Your task to perform on an android device: Do I have any events today? Image 0: 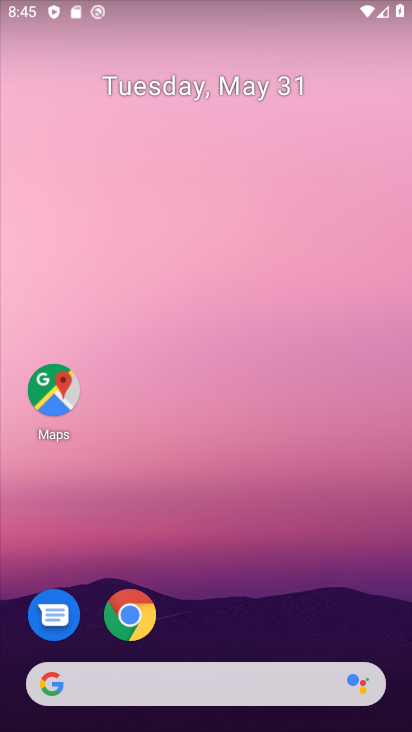
Step 0: press home button
Your task to perform on an android device: Do I have any events today? Image 1: 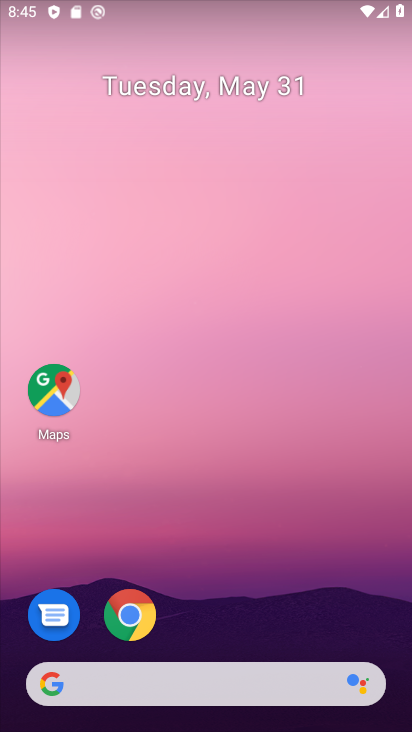
Step 1: drag from (225, 528) to (208, 105)
Your task to perform on an android device: Do I have any events today? Image 2: 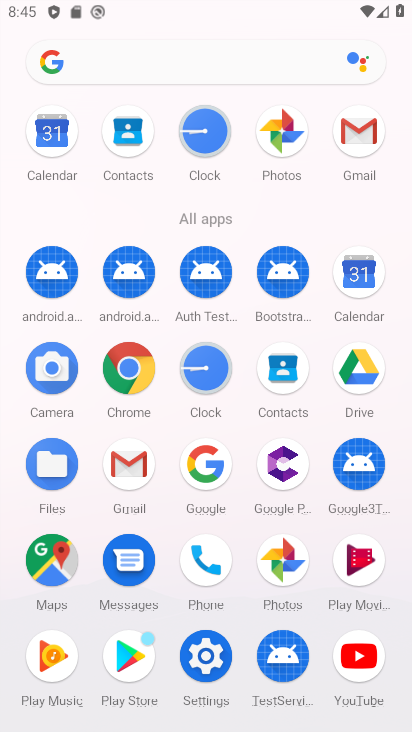
Step 2: click (347, 270)
Your task to perform on an android device: Do I have any events today? Image 3: 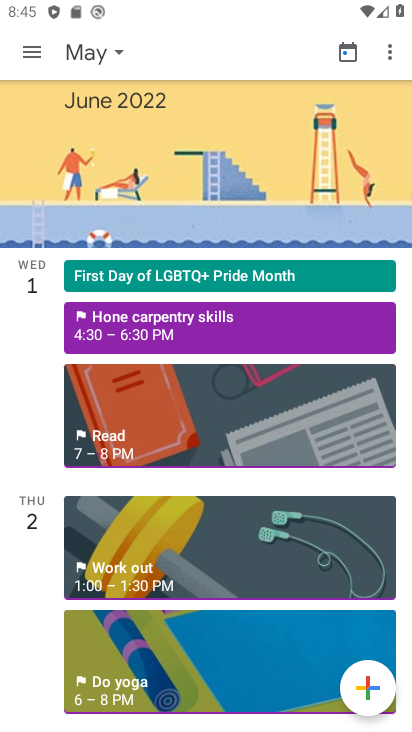
Step 3: click (23, 62)
Your task to perform on an android device: Do I have any events today? Image 4: 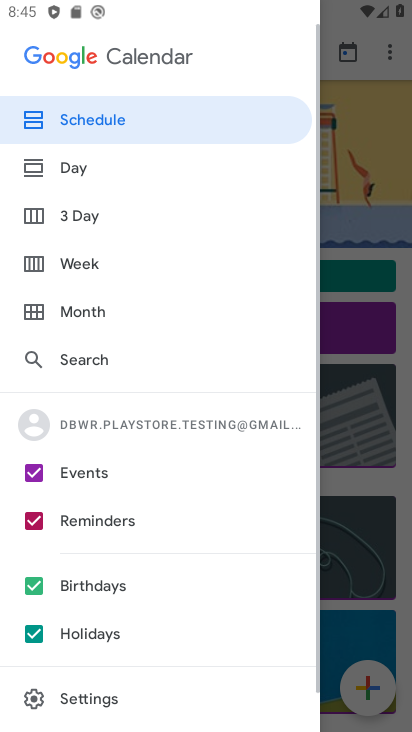
Step 4: drag from (216, 660) to (223, 259)
Your task to perform on an android device: Do I have any events today? Image 5: 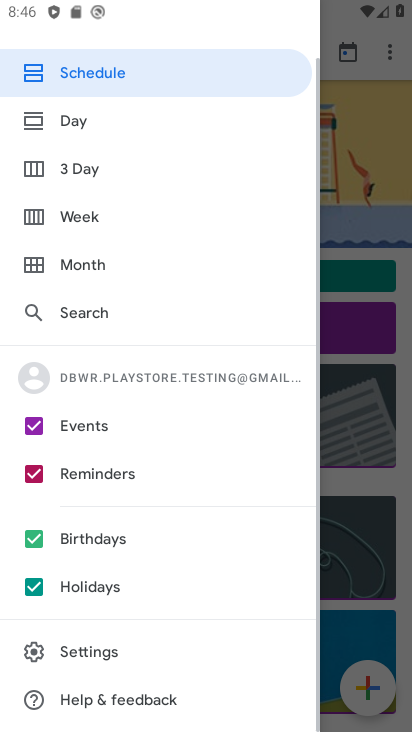
Step 5: click (325, 76)
Your task to perform on an android device: Do I have any events today? Image 6: 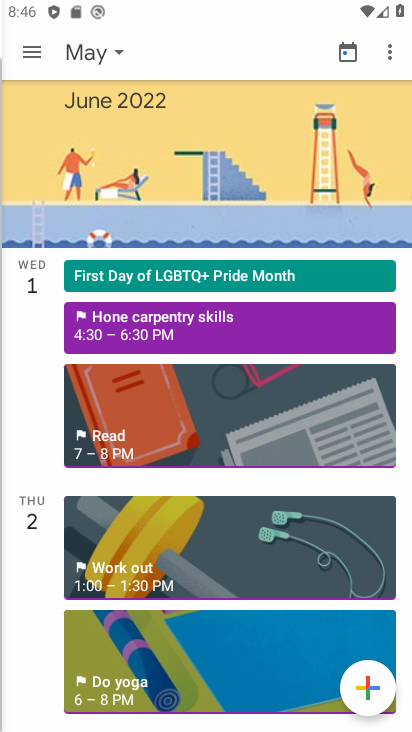
Step 6: click (238, 78)
Your task to perform on an android device: Do I have any events today? Image 7: 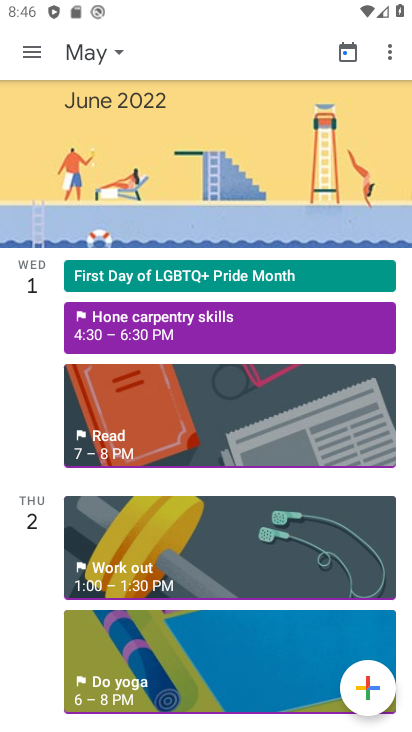
Step 7: task complete